Your task to perform on an android device: Open calendar and show me the third week of next month Image 0: 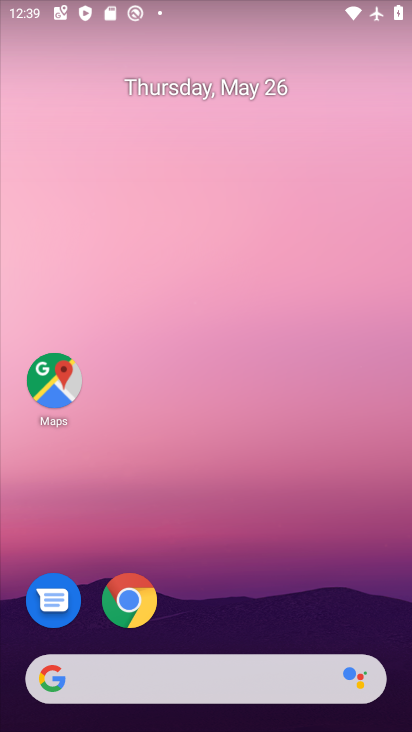
Step 0: drag from (240, 555) to (180, 115)
Your task to perform on an android device: Open calendar and show me the third week of next month Image 1: 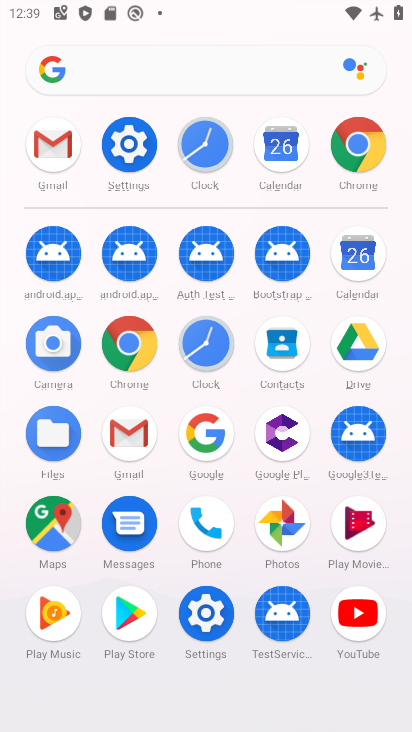
Step 1: click (357, 239)
Your task to perform on an android device: Open calendar and show me the third week of next month Image 2: 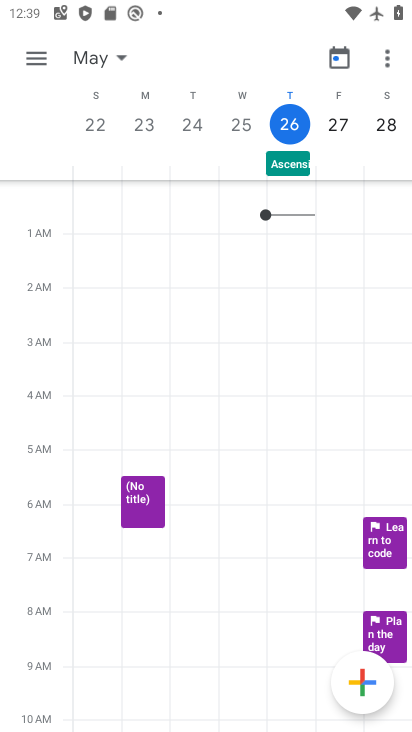
Step 2: click (94, 63)
Your task to perform on an android device: Open calendar and show me the third week of next month Image 3: 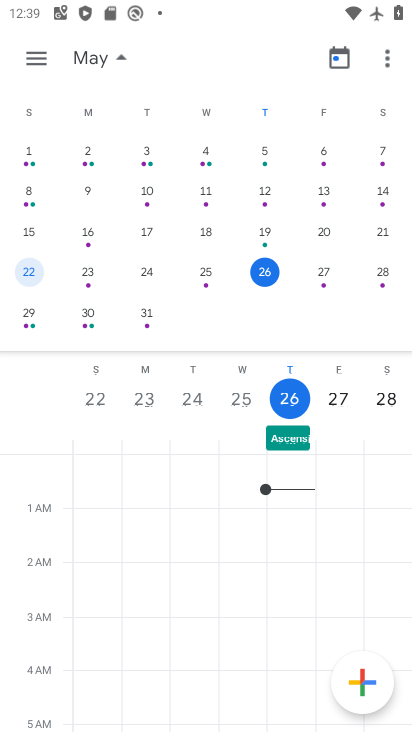
Step 3: drag from (356, 207) to (64, 200)
Your task to perform on an android device: Open calendar and show me the third week of next month Image 4: 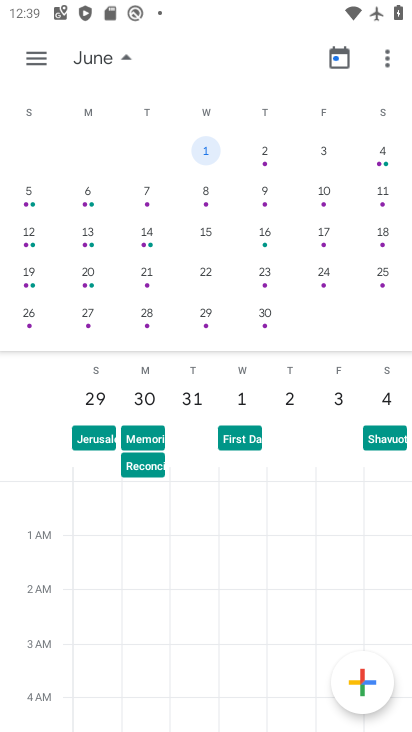
Step 4: click (28, 275)
Your task to perform on an android device: Open calendar and show me the third week of next month Image 5: 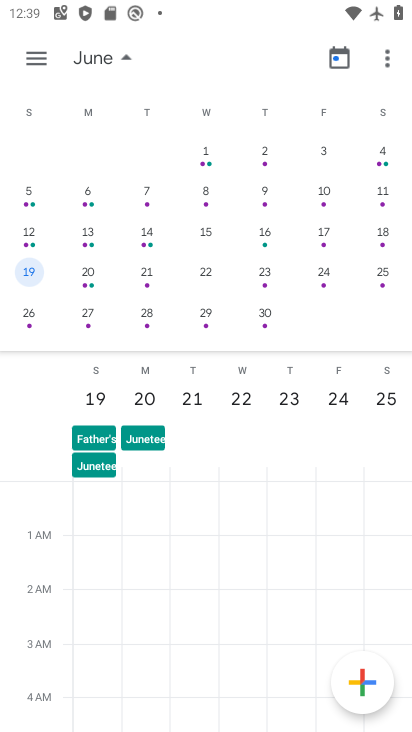
Step 5: task complete